Your task to perform on an android device: add a label to a message in the gmail app Image 0: 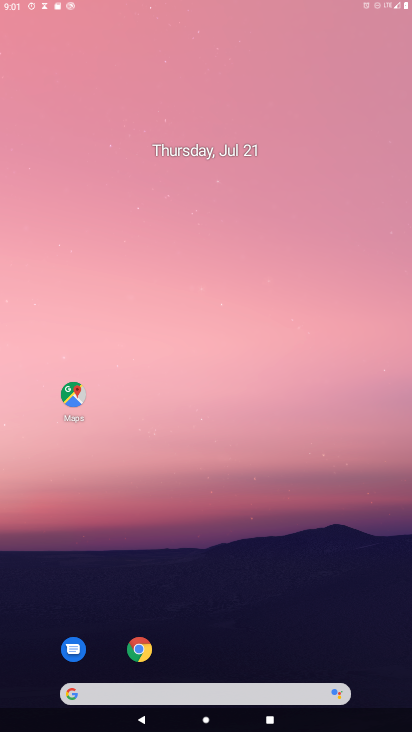
Step 0: click (198, 10)
Your task to perform on an android device: add a label to a message in the gmail app Image 1: 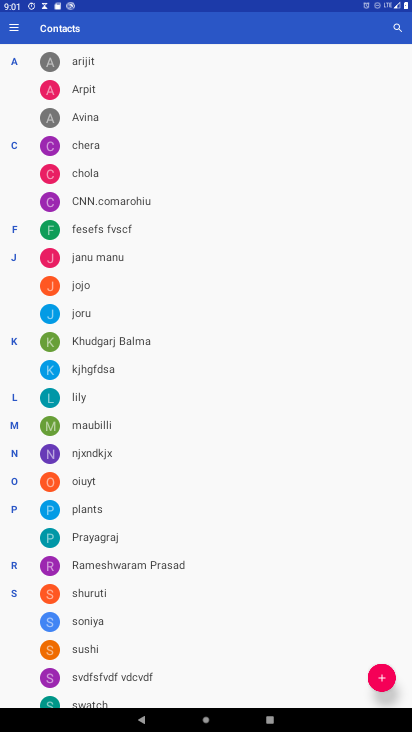
Step 1: press home button
Your task to perform on an android device: add a label to a message in the gmail app Image 2: 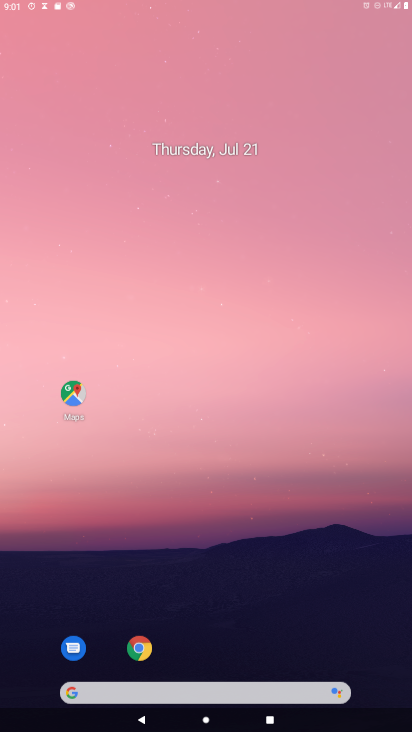
Step 2: drag from (384, 707) to (194, 6)
Your task to perform on an android device: add a label to a message in the gmail app Image 3: 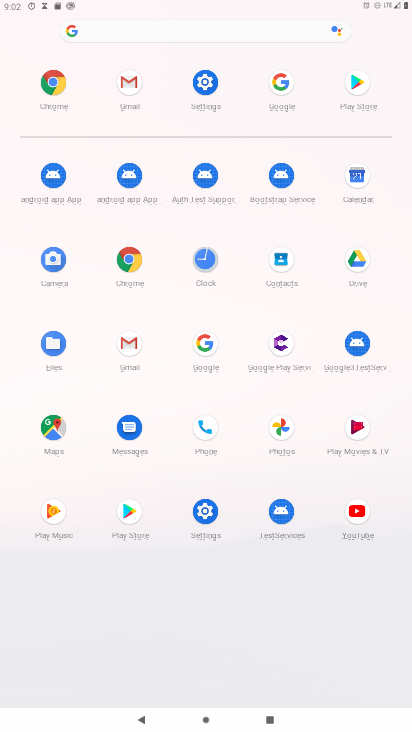
Step 3: click (131, 345)
Your task to perform on an android device: add a label to a message in the gmail app Image 4: 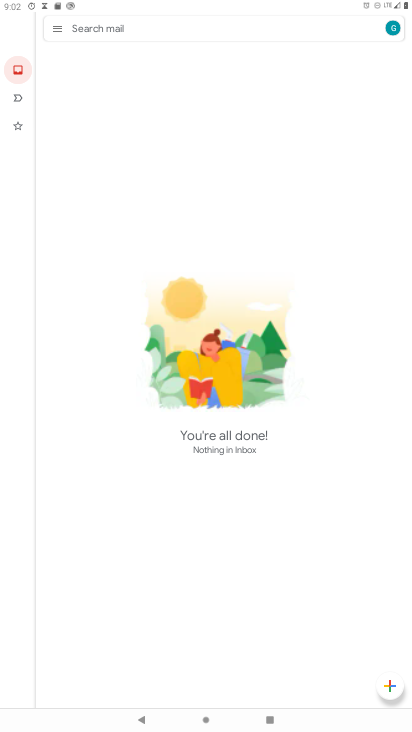
Step 4: task complete